Your task to perform on an android device: Go to eBay Image 0: 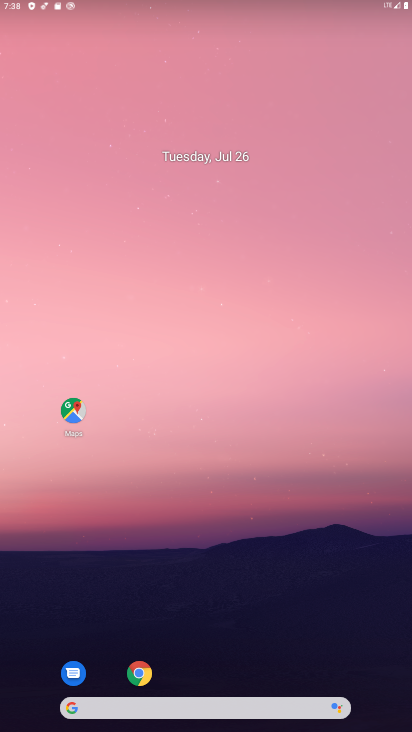
Step 0: drag from (345, 620) to (246, 32)
Your task to perform on an android device: Go to eBay Image 1: 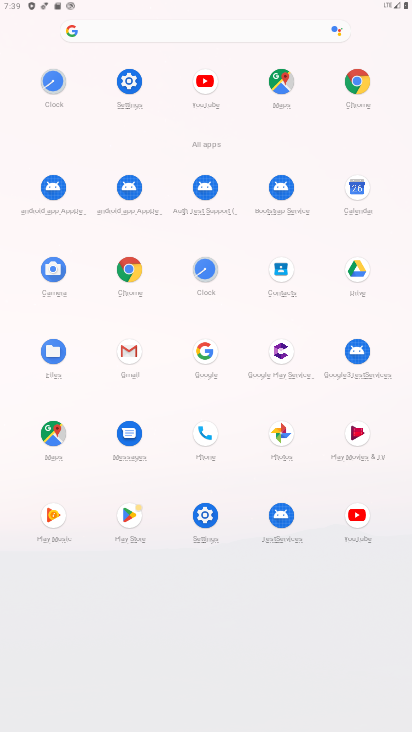
Step 1: click (197, 352)
Your task to perform on an android device: Go to eBay Image 2: 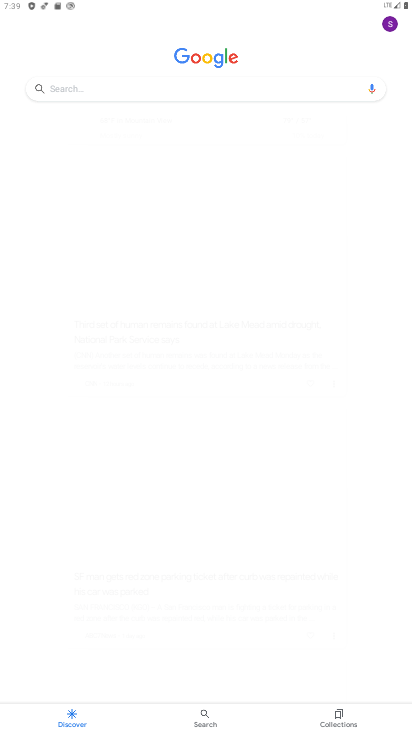
Step 2: click (120, 96)
Your task to perform on an android device: Go to eBay Image 3: 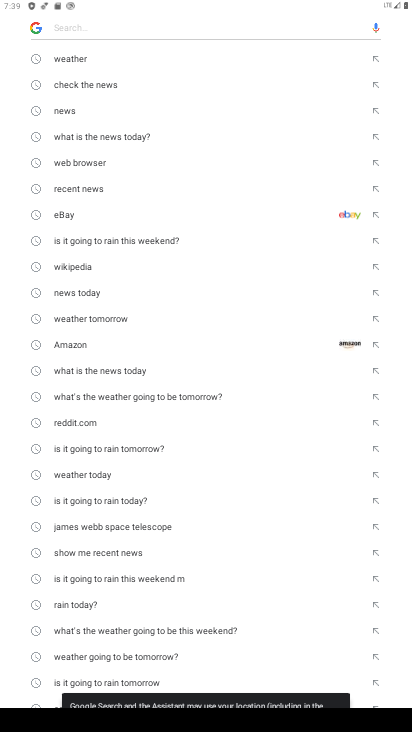
Step 3: click (81, 214)
Your task to perform on an android device: Go to eBay Image 4: 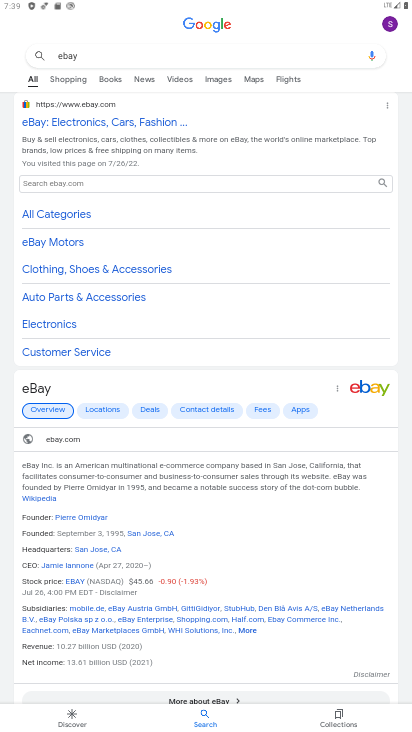
Step 4: task complete